Your task to perform on an android device: turn off wifi Image 0: 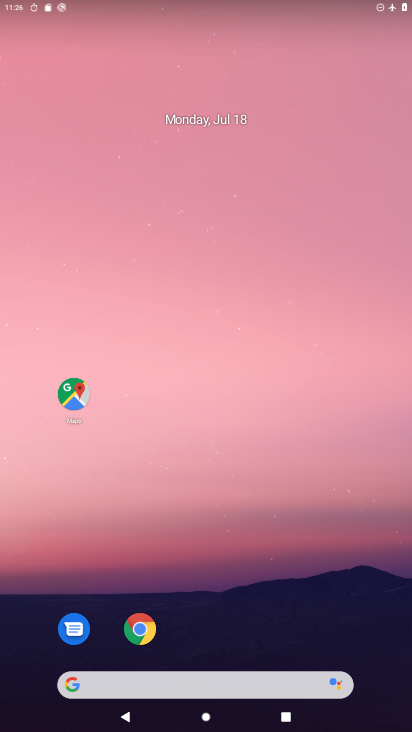
Step 0: click (239, 54)
Your task to perform on an android device: turn off wifi Image 1: 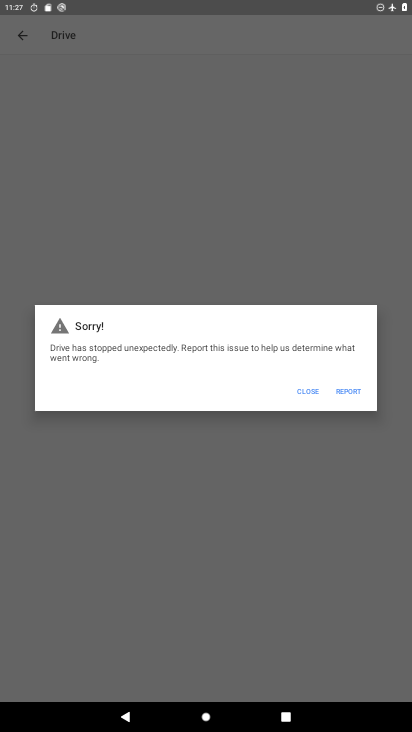
Step 1: press home button
Your task to perform on an android device: turn off wifi Image 2: 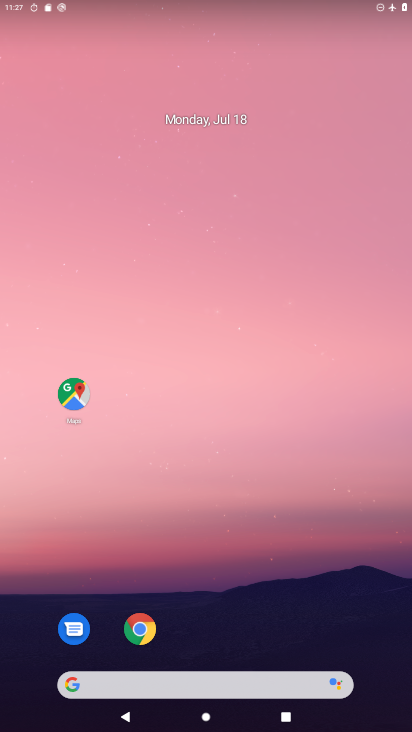
Step 2: drag from (277, 613) to (198, 42)
Your task to perform on an android device: turn off wifi Image 3: 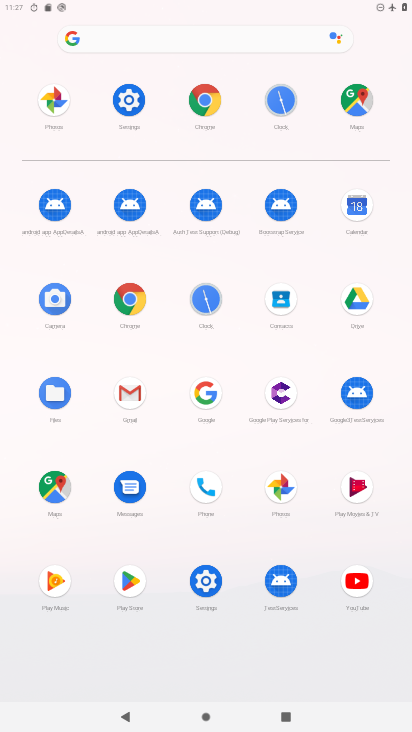
Step 3: click (119, 102)
Your task to perform on an android device: turn off wifi Image 4: 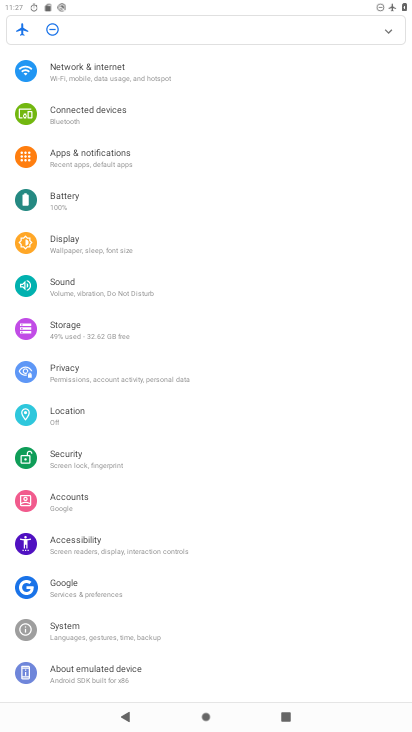
Step 4: click (126, 79)
Your task to perform on an android device: turn off wifi Image 5: 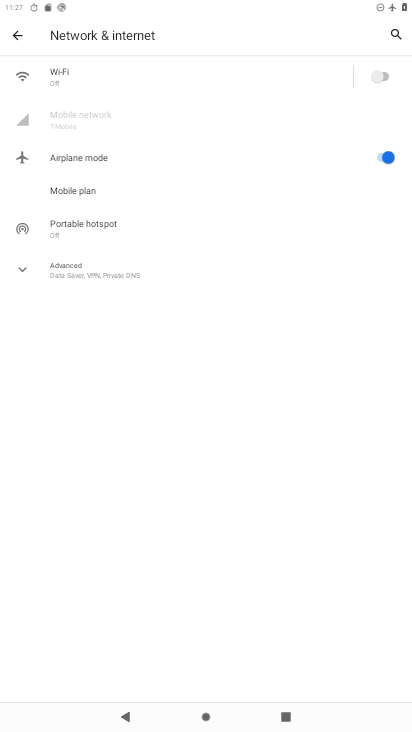
Step 5: task complete